Your task to perform on an android device: Go to display settings Image 0: 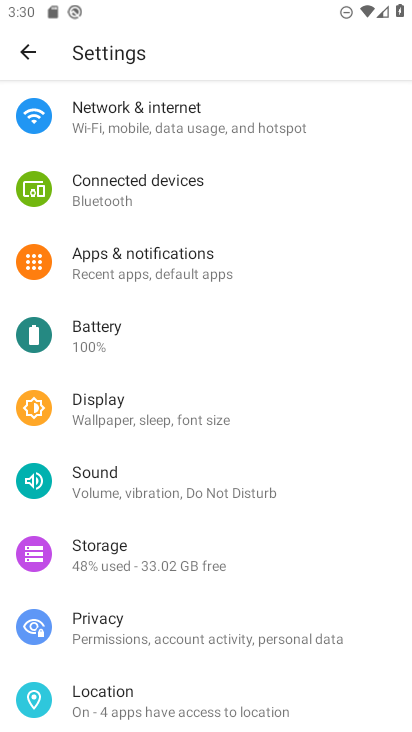
Step 0: click (96, 410)
Your task to perform on an android device: Go to display settings Image 1: 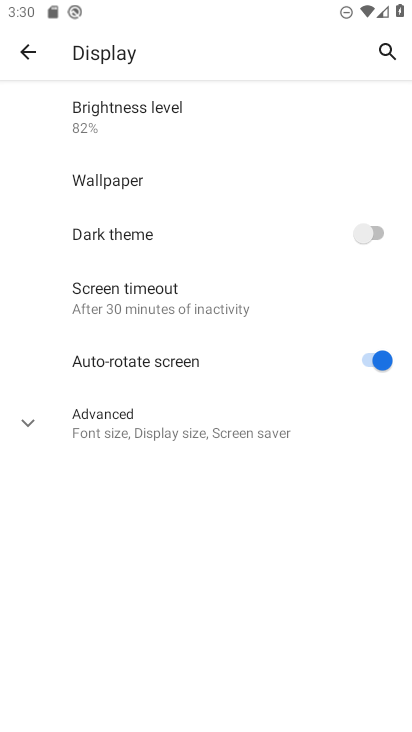
Step 1: task complete